Your task to perform on an android device: Open Youtube and go to "Your channel" Image 0: 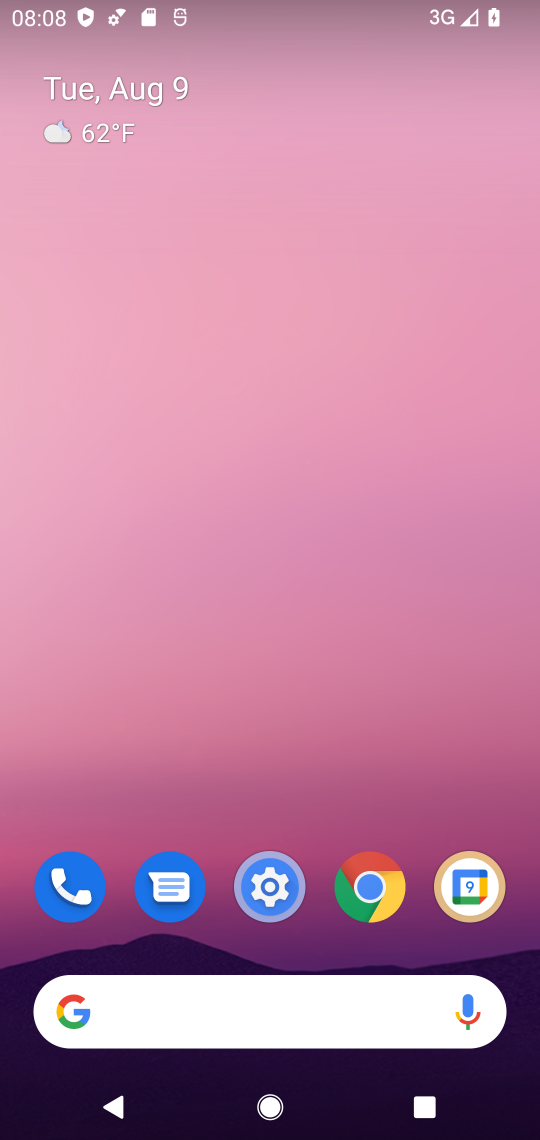
Step 0: drag from (314, 809) to (284, 1)
Your task to perform on an android device: Open Youtube and go to "Your channel" Image 1: 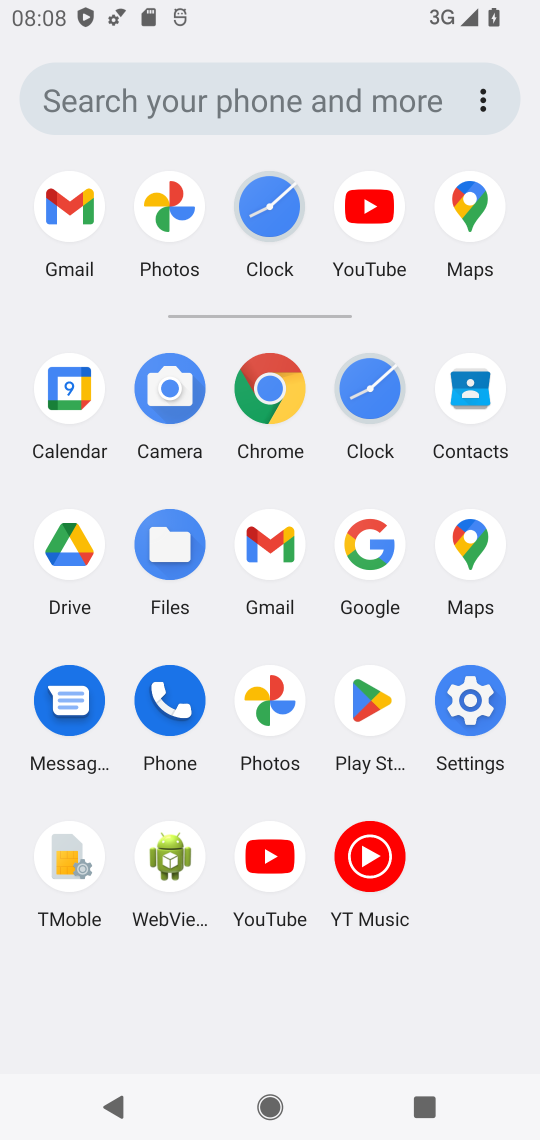
Step 1: click (284, 856)
Your task to perform on an android device: Open Youtube and go to "Your channel" Image 2: 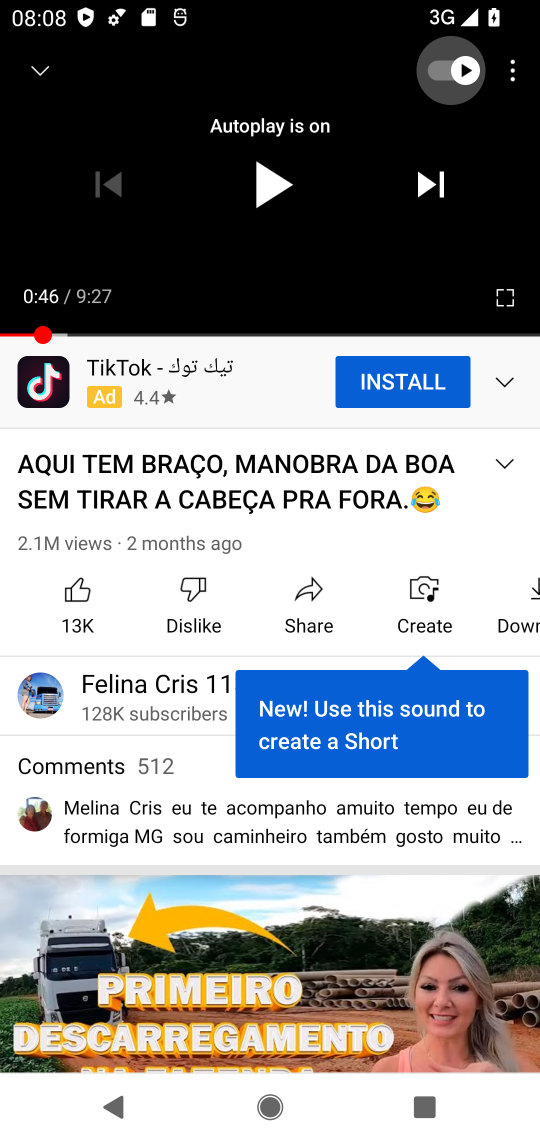
Step 2: click (510, 76)
Your task to perform on an android device: Open Youtube and go to "Your channel" Image 3: 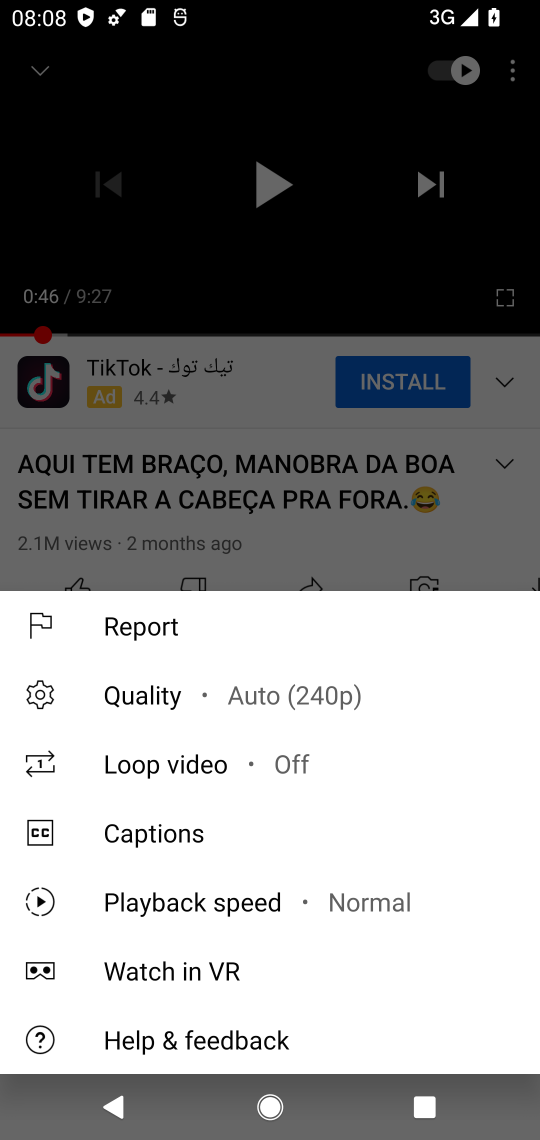
Step 3: click (510, 78)
Your task to perform on an android device: Open Youtube and go to "Your channel" Image 4: 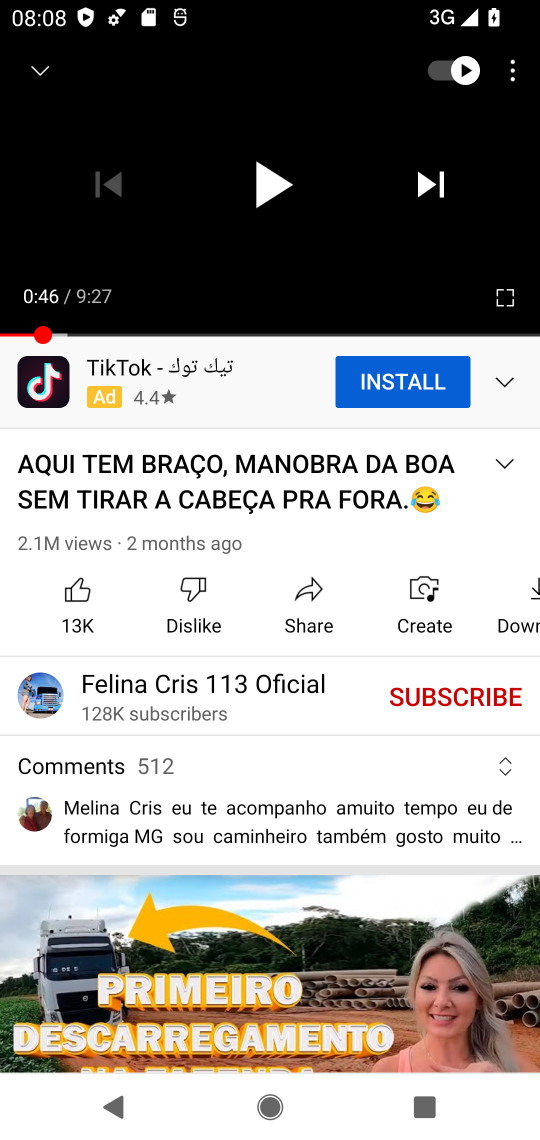
Step 4: click (512, 82)
Your task to perform on an android device: Open Youtube and go to "Your channel" Image 5: 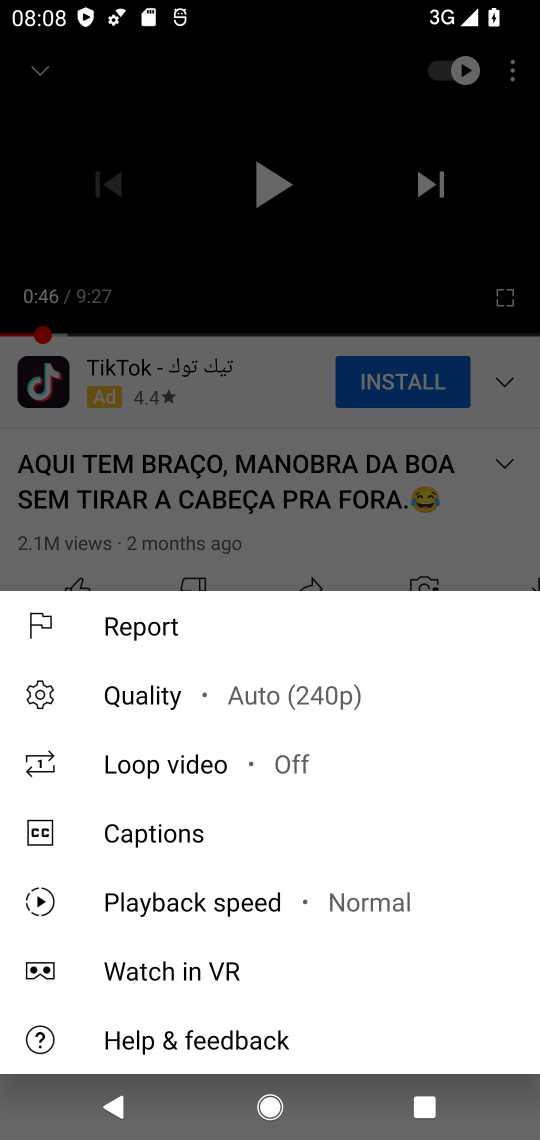
Step 5: click (512, 82)
Your task to perform on an android device: Open Youtube and go to "Your channel" Image 6: 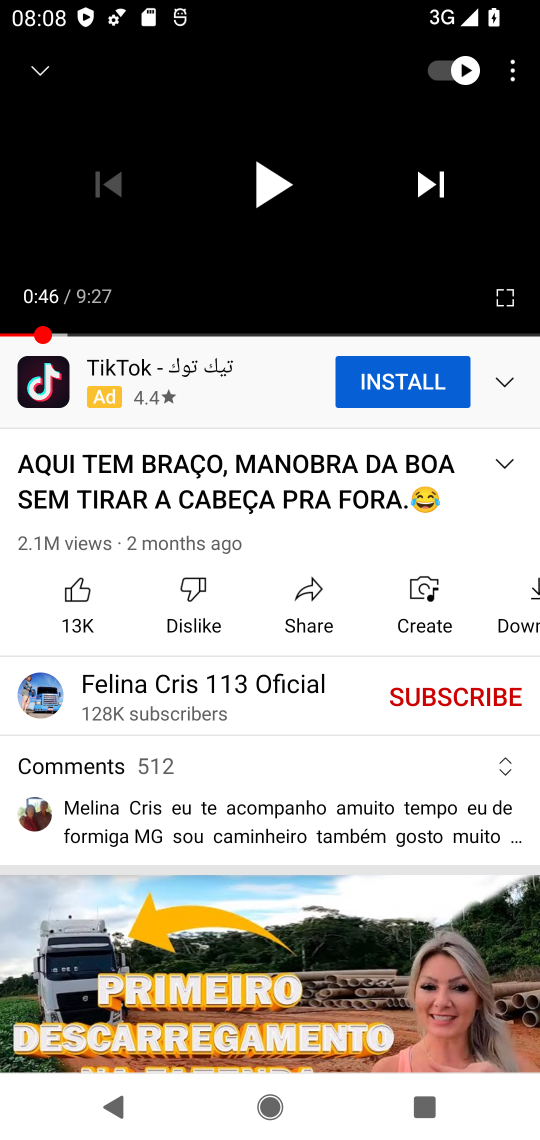
Step 6: press back button
Your task to perform on an android device: Open Youtube and go to "Your channel" Image 7: 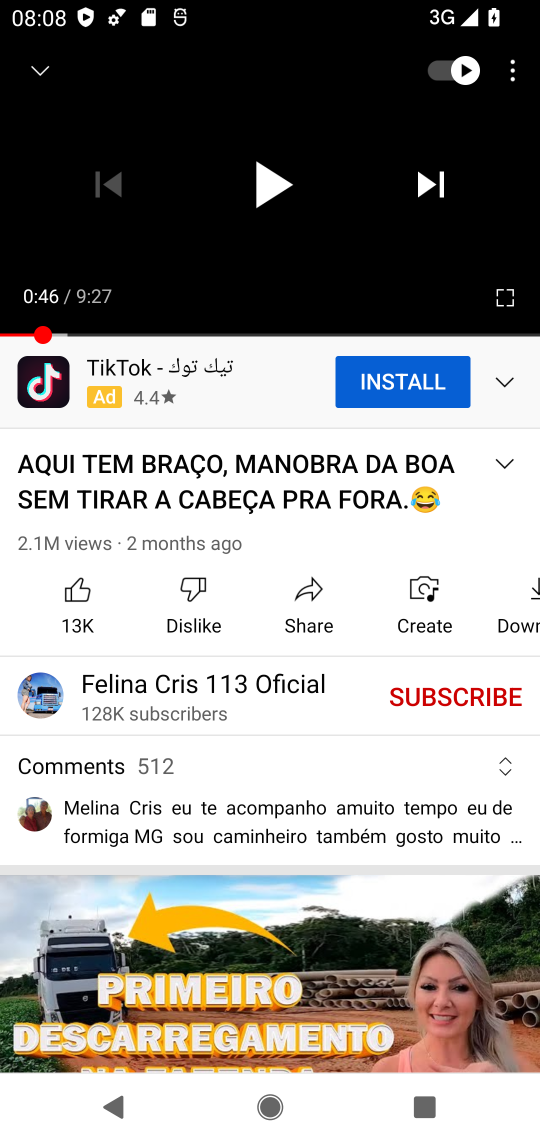
Step 7: press back button
Your task to perform on an android device: Open Youtube and go to "Your channel" Image 8: 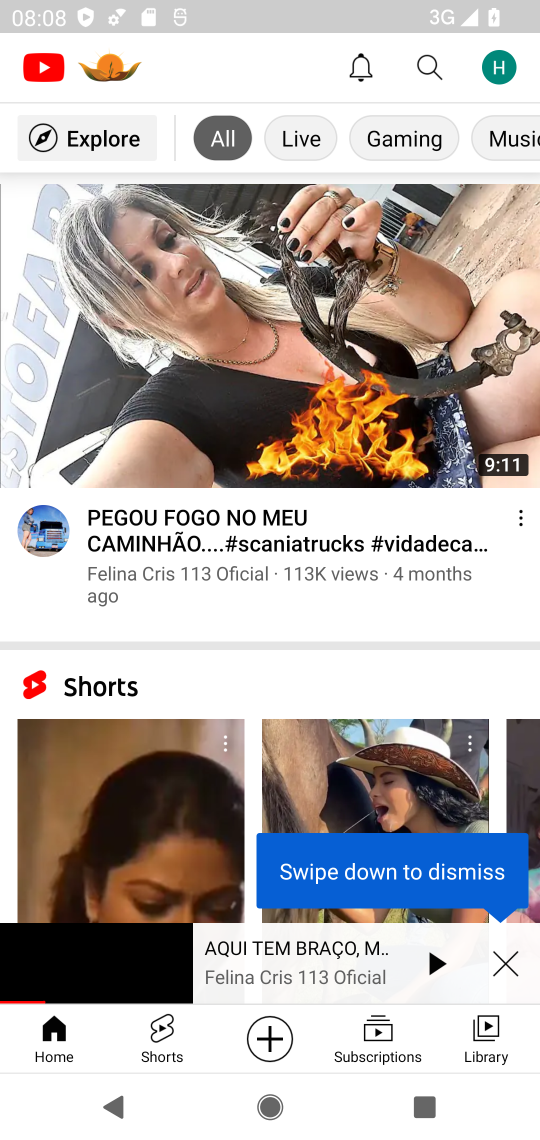
Step 8: click (510, 69)
Your task to perform on an android device: Open Youtube and go to "Your channel" Image 9: 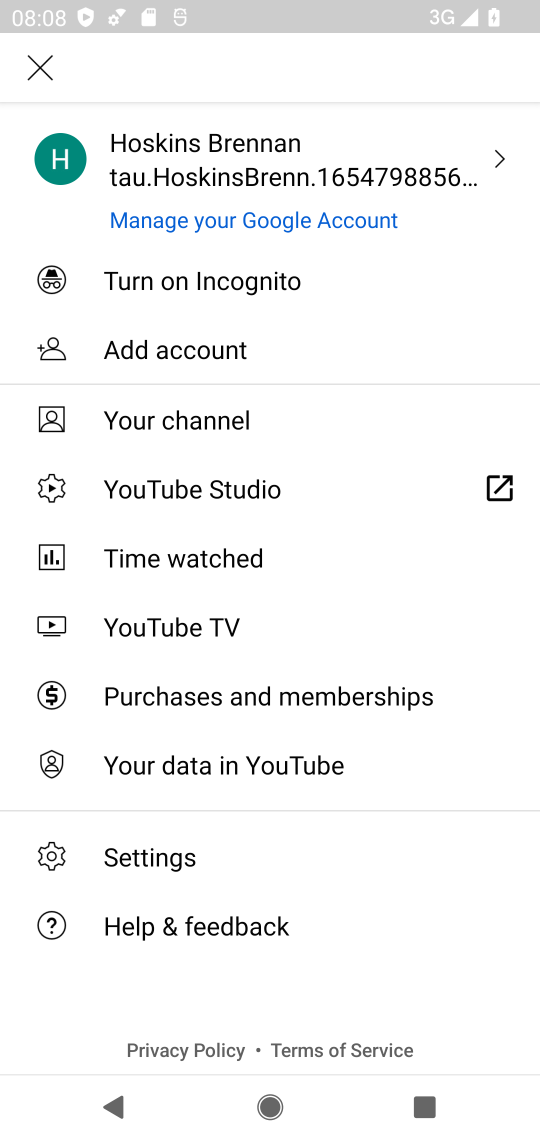
Step 9: click (221, 410)
Your task to perform on an android device: Open Youtube and go to "Your channel" Image 10: 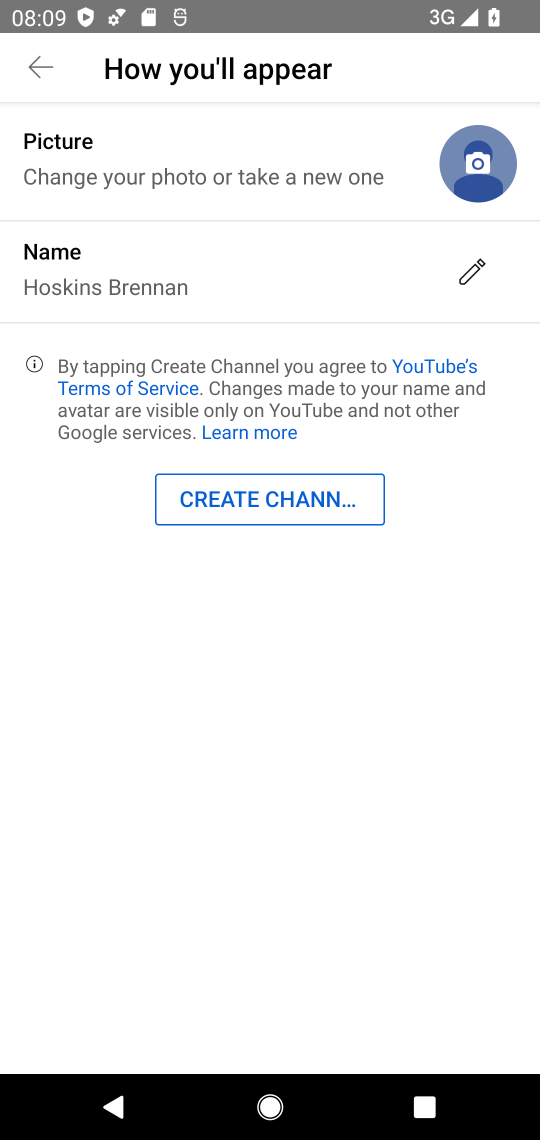
Step 10: task complete